Your task to perform on an android device: change the upload size in google photos Image 0: 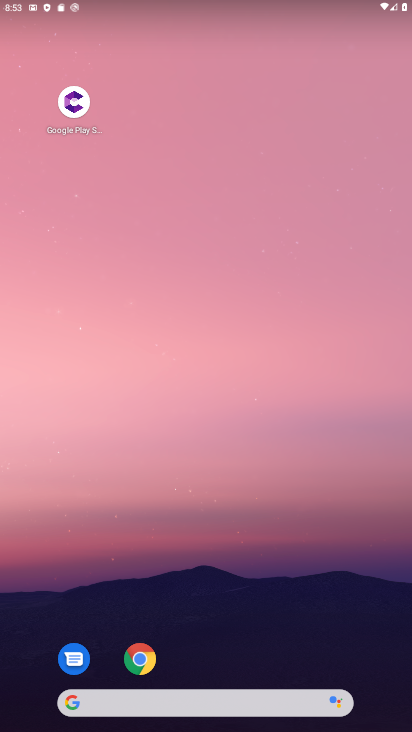
Step 0: drag from (328, 650) to (365, 71)
Your task to perform on an android device: change the upload size in google photos Image 1: 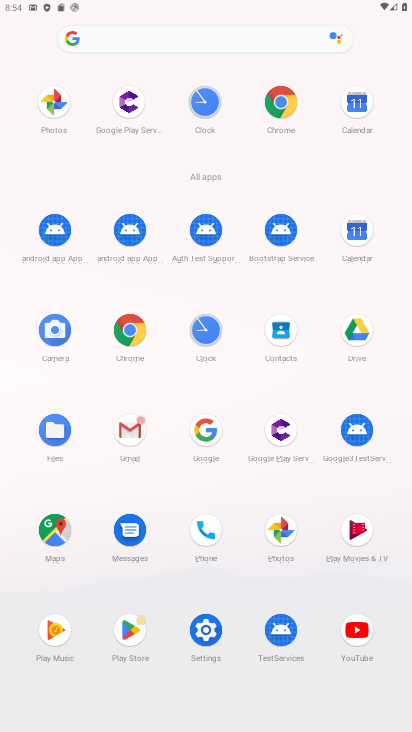
Step 1: click (280, 531)
Your task to perform on an android device: change the upload size in google photos Image 2: 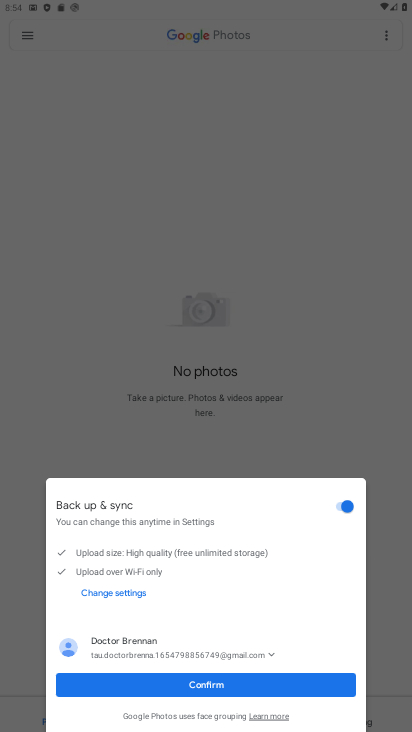
Step 2: click (240, 685)
Your task to perform on an android device: change the upload size in google photos Image 3: 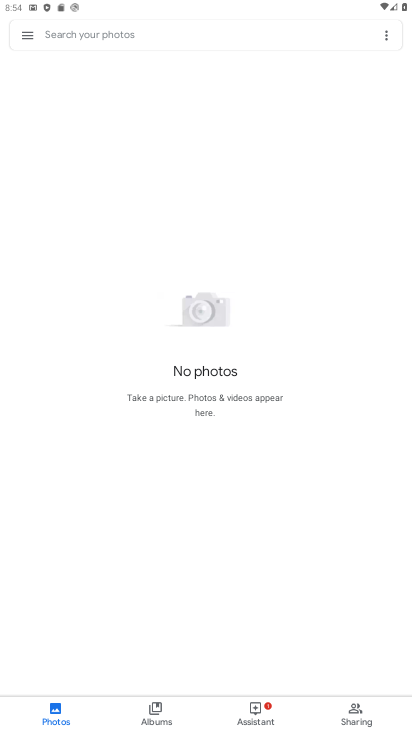
Step 3: click (27, 32)
Your task to perform on an android device: change the upload size in google photos Image 4: 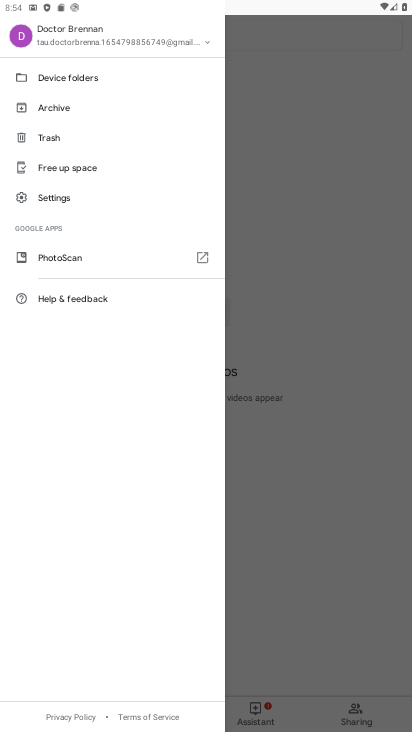
Step 4: click (71, 205)
Your task to perform on an android device: change the upload size in google photos Image 5: 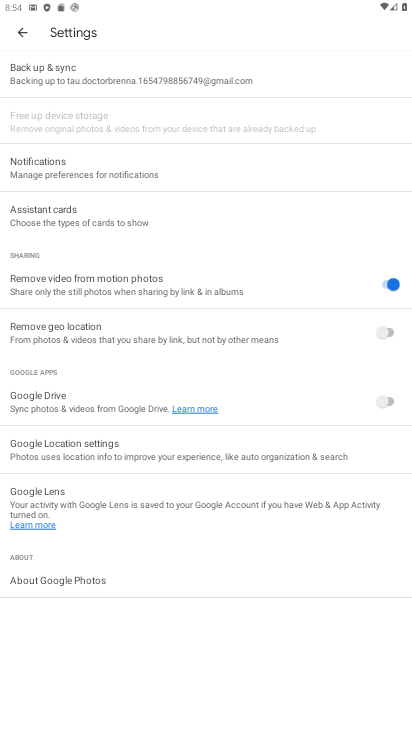
Step 5: click (147, 70)
Your task to perform on an android device: change the upload size in google photos Image 6: 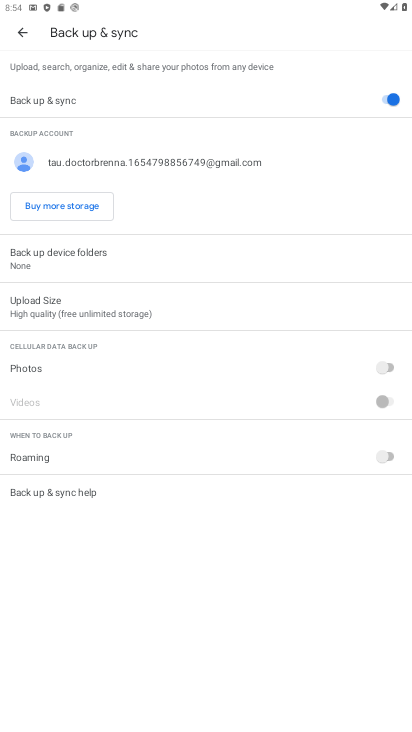
Step 6: click (133, 316)
Your task to perform on an android device: change the upload size in google photos Image 7: 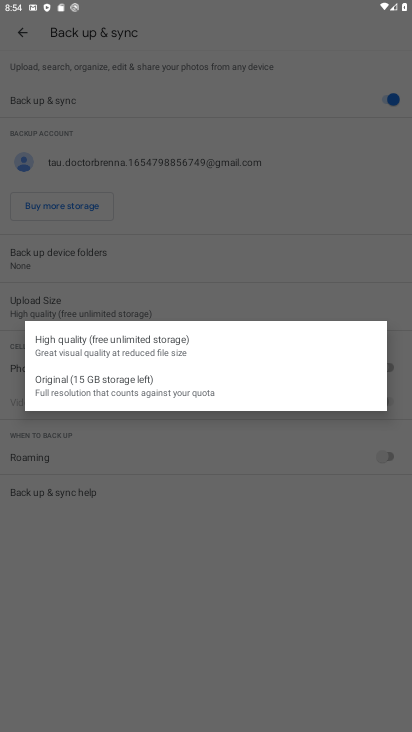
Step 7: click (127, 387)
Your task to perform on an android device: change the upload size in google photos Image 8: 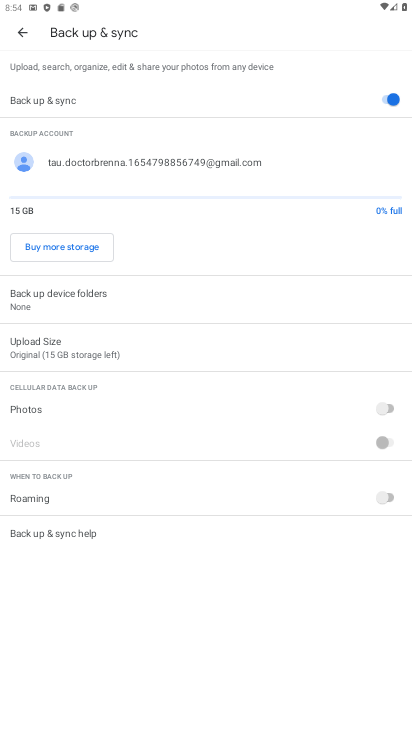
Step 8: task complete